Your task to perform on an android device: Go to Yahoo.com Image 0: 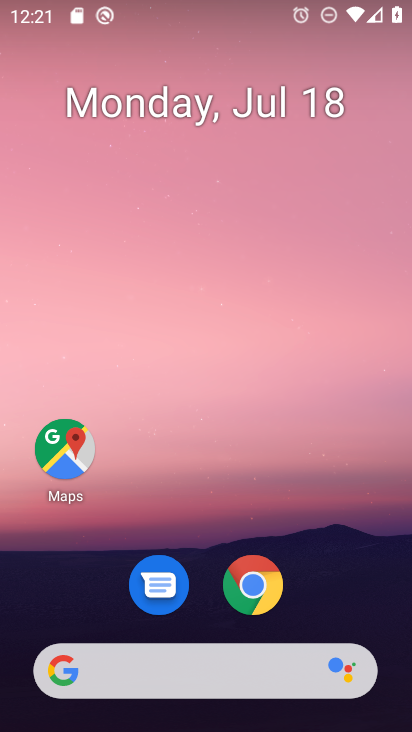
Step 0: click (221, 670)
Your task to perform on an android device: Go to Yahoo.com Image 1: 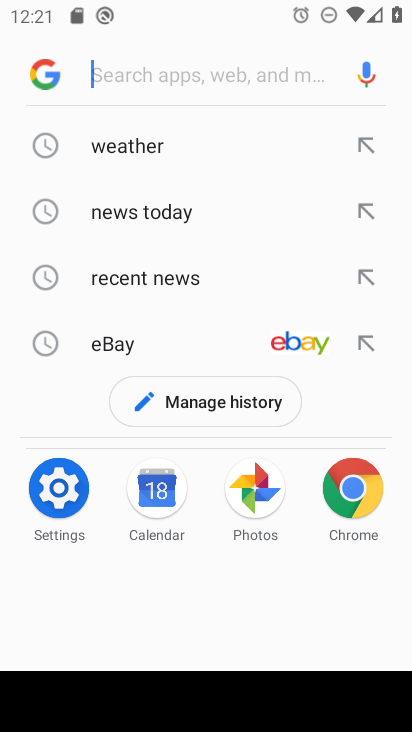
Step 1: type "yahoo.com"
Your task to perform on an android device: Go to Yahoo.com Image 2: 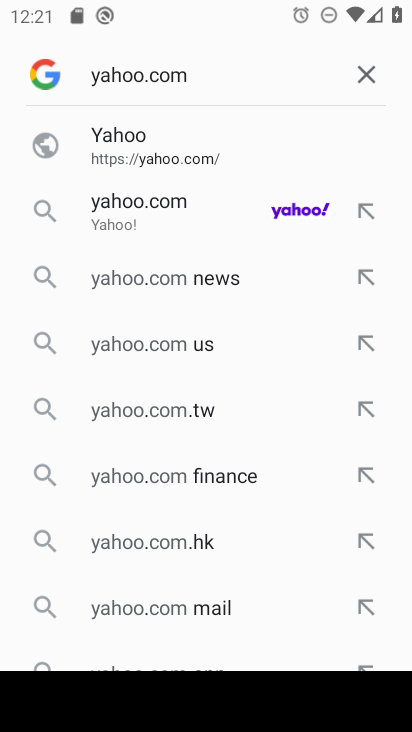
Step 2: click (312, 202)
Your task to perform on an android device: Go to Yahoo.com Image 3: 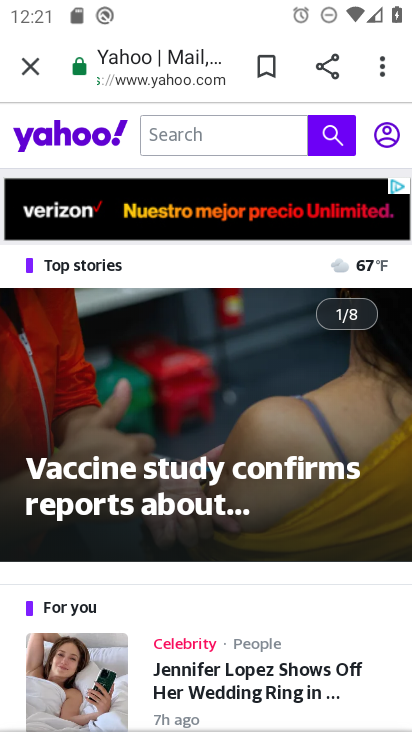
Step 3: drag from (287, 531) to (226, 169)
Your task to perform on an android device: Go to Yahoo.com Image 4: 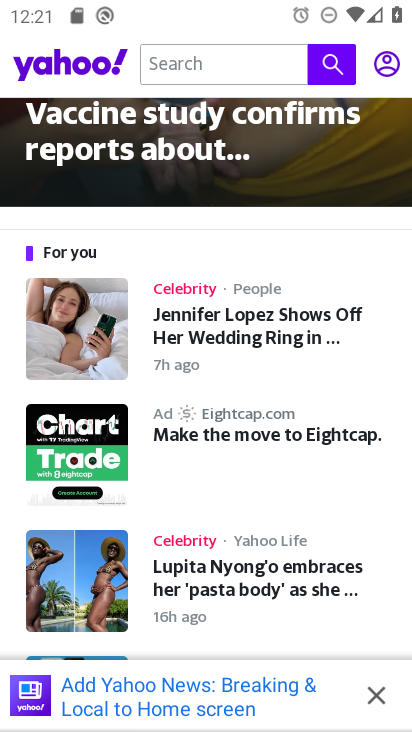
Step 4: drag from (244, 478) to (239, 276)
Your task to perform on an android device: Go to Yahoo.com Image 5: 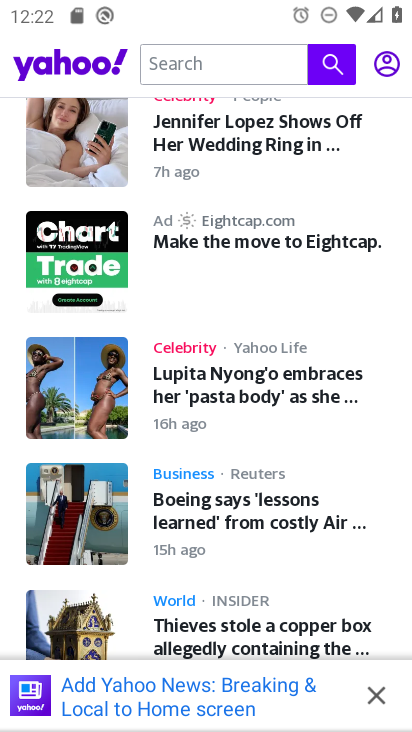
Step 5: drag from (273, 549) to (245, 197)
Your task to perform on an android device: Go to Yahoo.com Image 6: 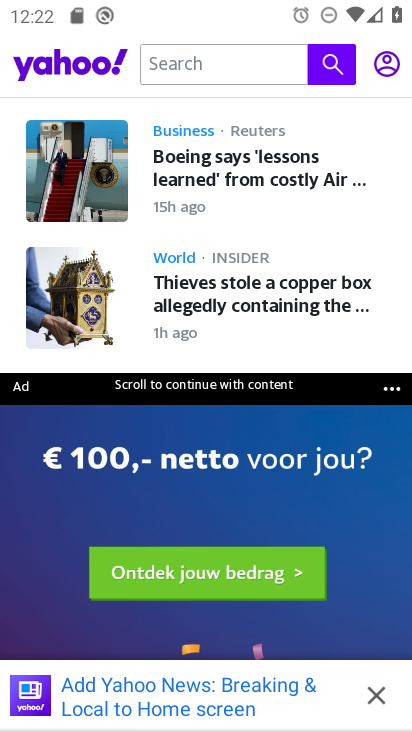
Step 6: click (287, 282)
Your task to perform on an android device: Go to Yahoo.com Image 7: 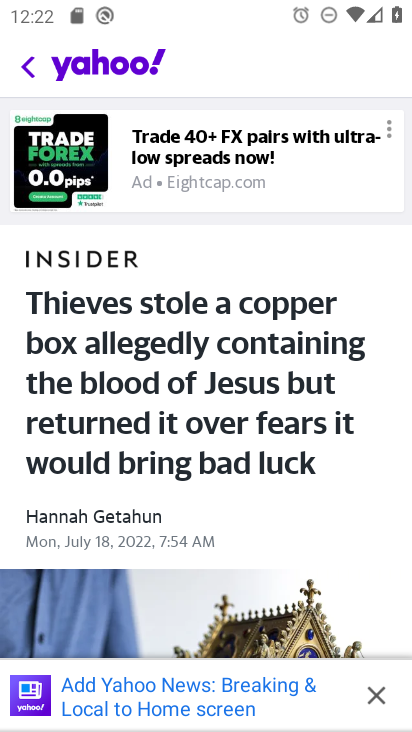
Step 7: task complete